Your task to perform on an android device: toggle improve location accuracy Image 0: 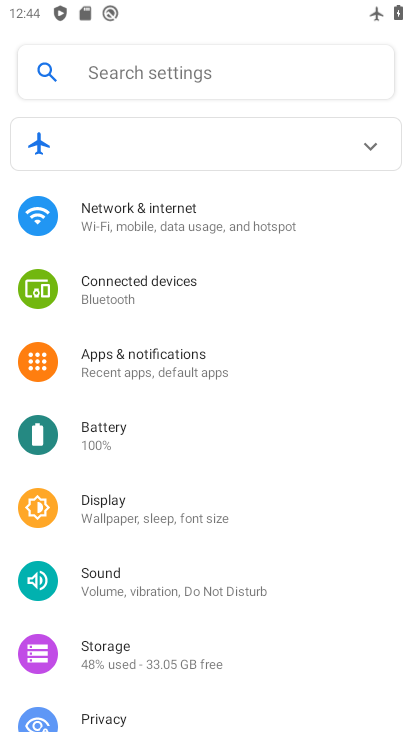
Step 0: press home button
Your task to perform on an android device: toggle improve location accuracy Image 1: 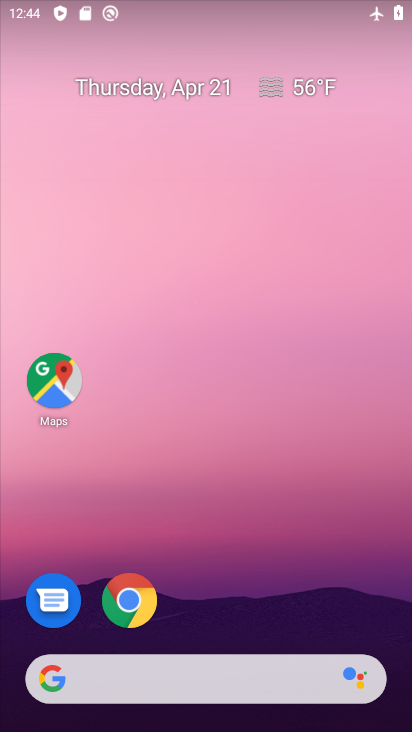
Step 1: drag from (402, 547) to (409, 221)
Your task to perform on an android device: toggle improve location accuracy Image 2: 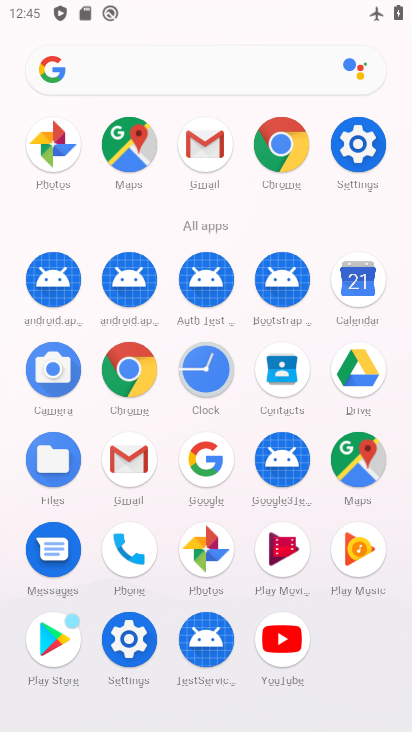
Step 2: click (358, 151)
Your task to perform on an android device: toggle improve location accuracy Image 3: 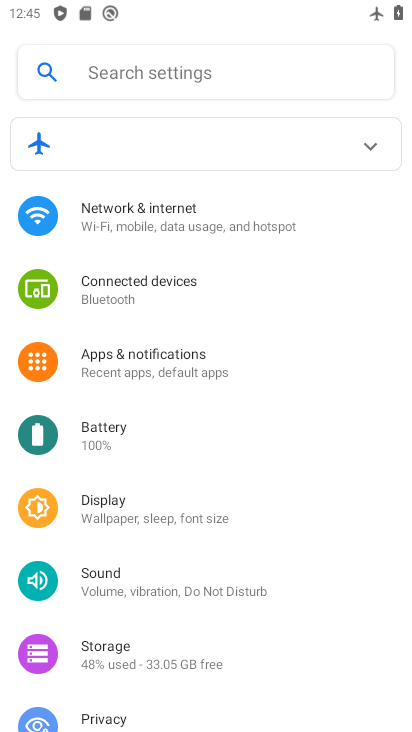
Step 3: drag from (298, 656) to (295, 269)
Your task to perform on an android device: toggle improve location accuracy Image 4: 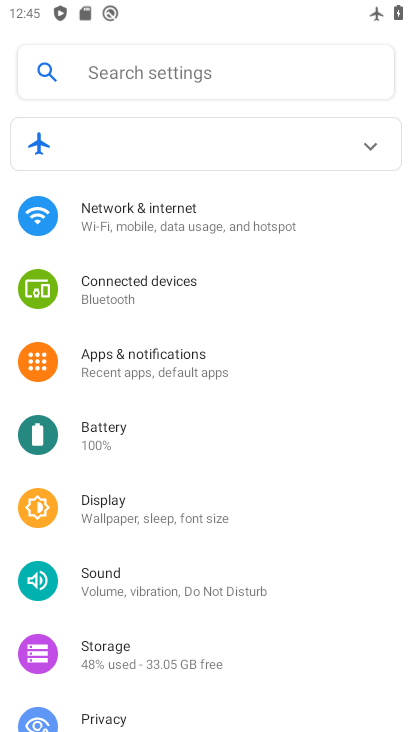
Step 4: drag from (349, 667) to (344, 306)
Your task to perform on an android device: toggle improve location accuracy Image 5: 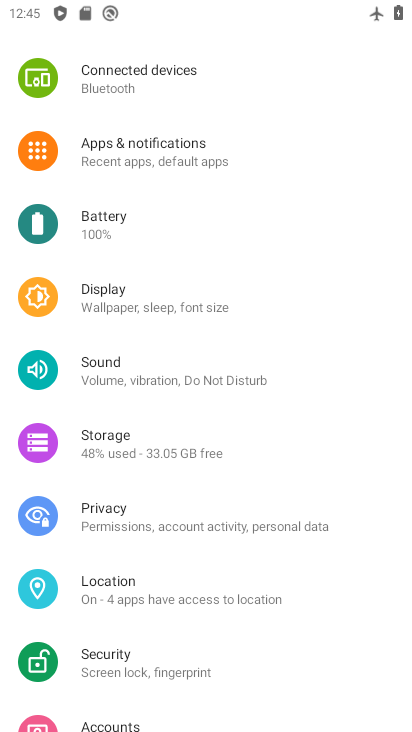
Step 5: drag from (336, 275) to (336, 221)
Your task to perform on an android device: toggle improve location accuracy Image 6: 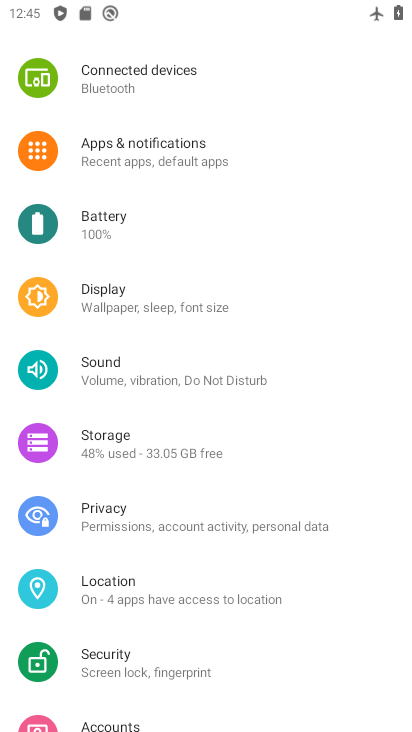
Step 6: click (93, 583)
Your task to perform on an android device: toggle improve location accuracy Image 7: 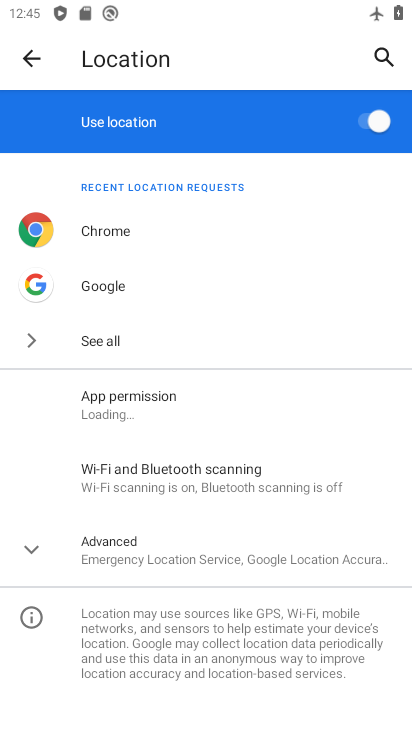
Step 7: drag from (377, 670) to (319, 288)
Your task to perform on an android device: toggle improve location accuracy Image 8: 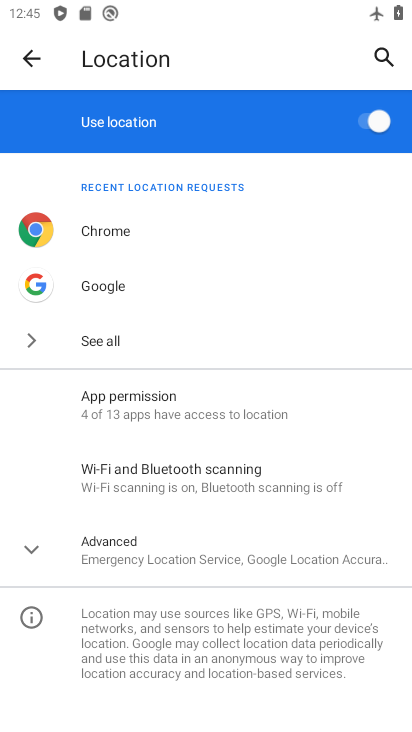
Step 8: drag from (367, 475) to (358, 347)
Your task to perform on an android device: toggle improve location accuracy Image 9: 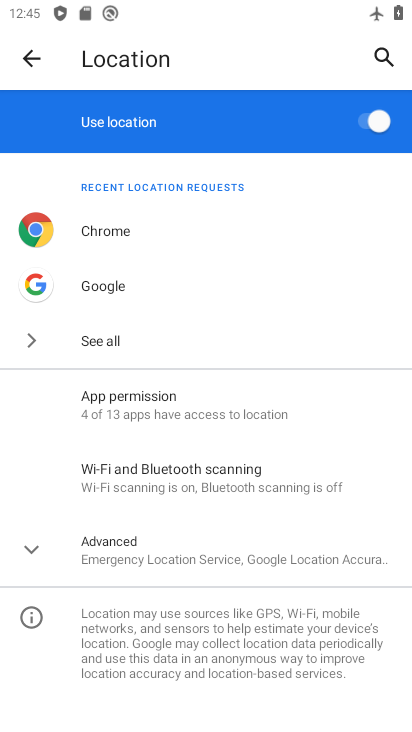
Step 9: drag from (344, 640) to (344, 263)
Your task to perform on an android device: toggle improve location accuracy Image 10: 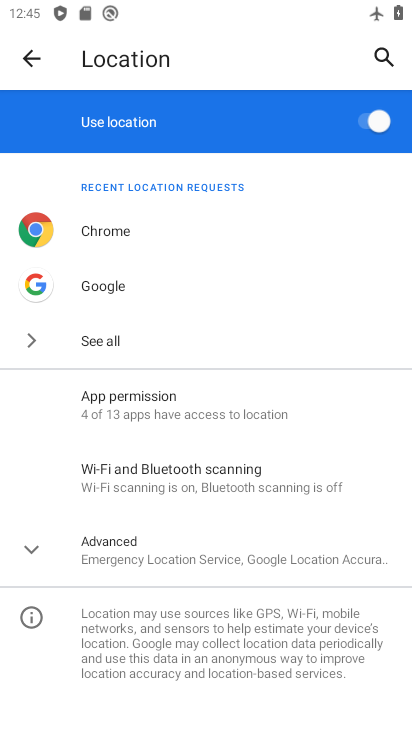
Step 10: drag from (349, 625) to (326, 302)
Your task to perform on an android device: toggle improve location accuracy Image 11: 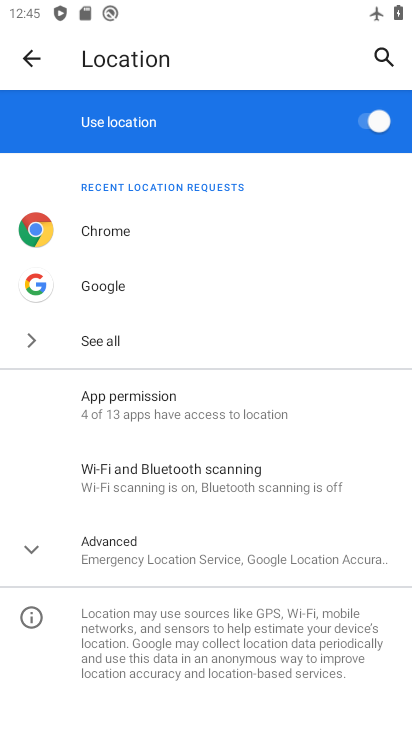
Step 11: drag from (276, 347) to (262, 273)
Your task to perform on an android device: toggle improve location accuracy Image 12: 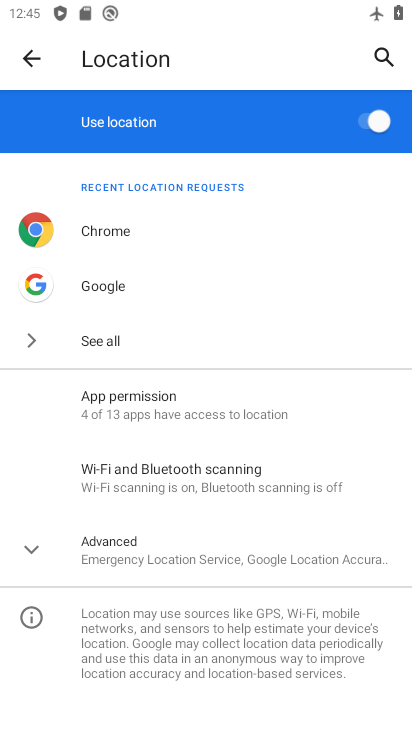
Step 12: click (69, 547)
Your task to perform on an android device: toggle improve location accuracy Image 13: 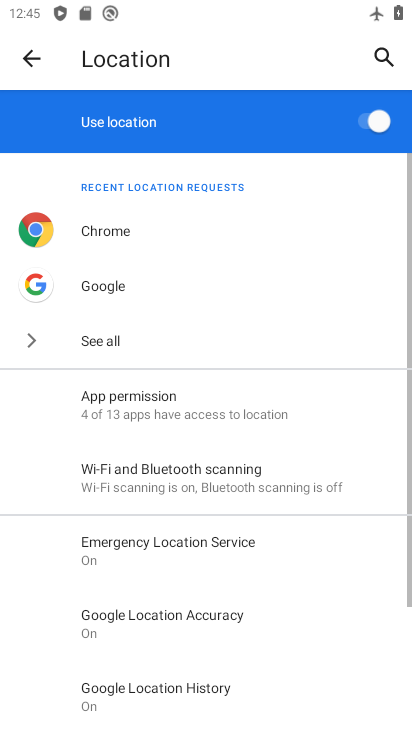
Step 13: drag from (331, 658) to (346, 283)
Your task to perform on an android device: toggle improve location accuracy Image 14: 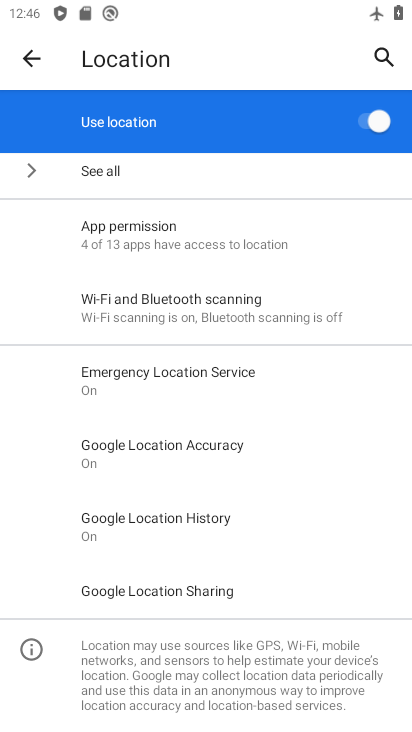
Step 14: click (136, 448)
Your task to perform on an android device: toggle improve location accuracy Image 15: 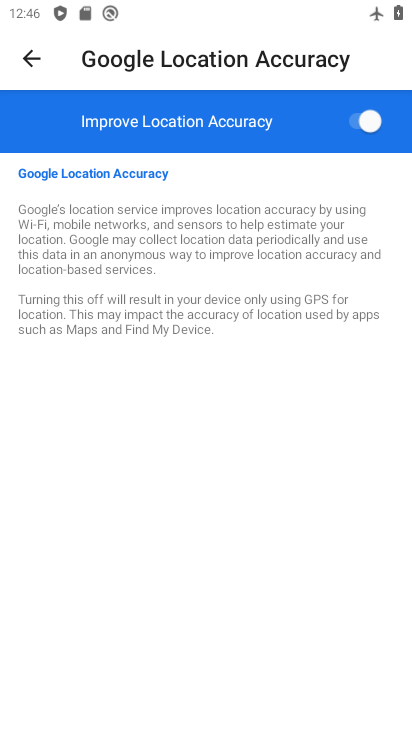
Step 15: click (353, 114)
Your task to perform on an android device: toggle improve location accuracy Image 16: 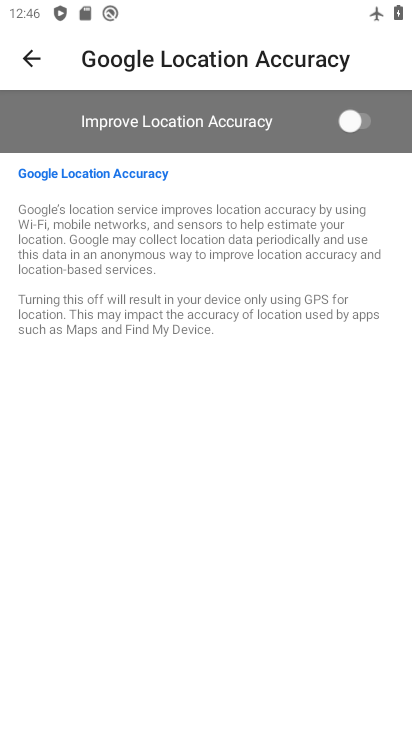
Step 16: task complete